Your task to perform on an android device: open the mobile data screen to see how much data has been used Image 0: 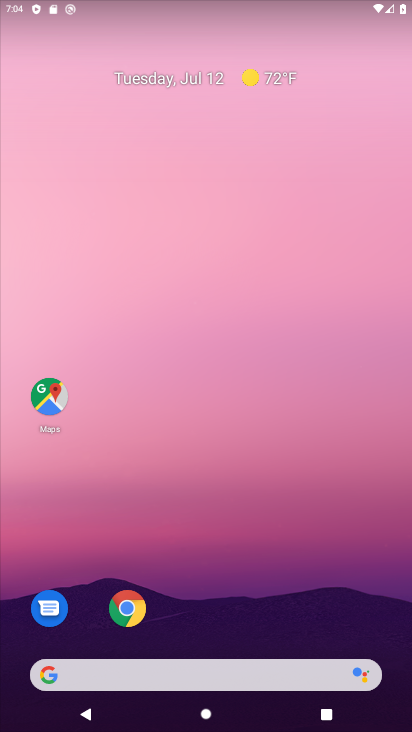
Step 0: drag from (214, 546) to (185, 110)
Your task to perform on an android device: open the mobile data screen to see how much data has been used Image 1: 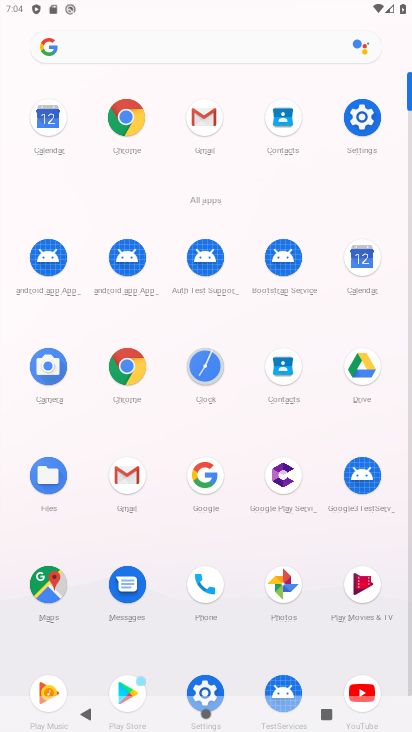
Step 1: click (361, 118)
Your task to perform on an android device: open the mobile data screen to see how much data has been used Image 2: 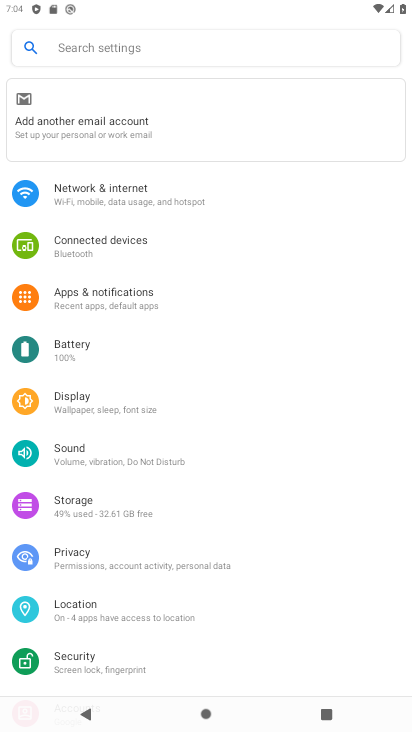
Step 2: click (88, 190)
Your task to perform on an android device: open the mobile data screen to see how much data has been used Image 3: 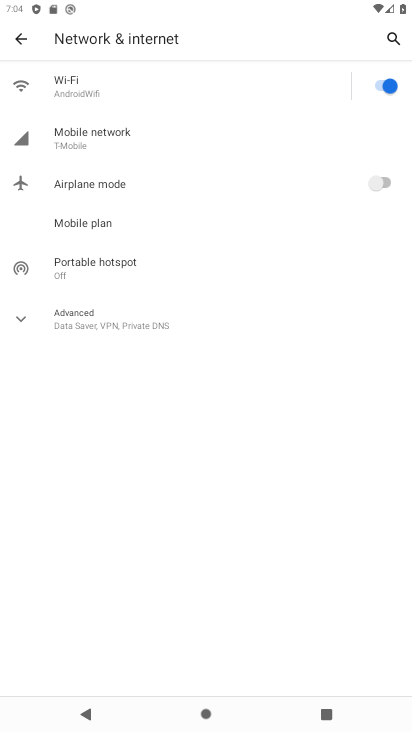
Step 3: click (97, 127)
Your task to perform on an android device: open the mobile data screen to see how much data has been used Image 4: 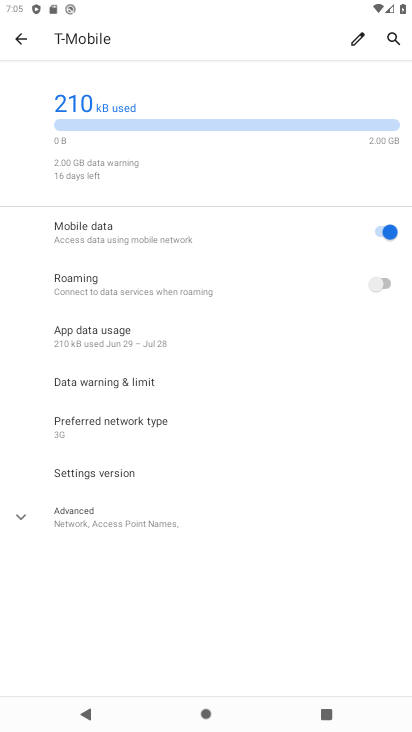
Step 4: task complete